Your task to perform on an android device: Do I have any events this weekend? Image 0: 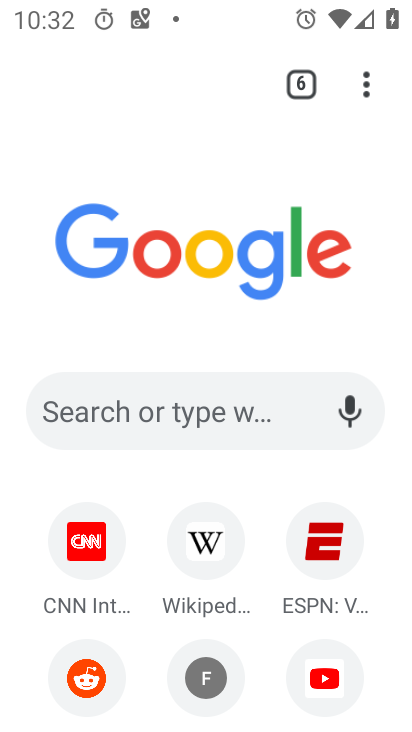
Step 0: press home button
Your task to perform on an android device: Do I have any events this weekend? Image 1: 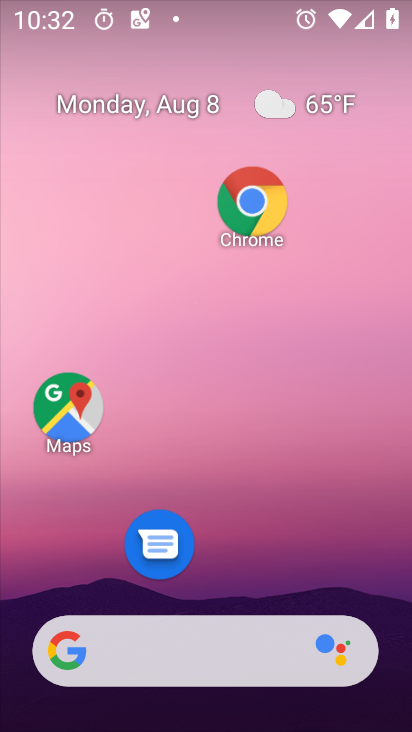
Step 1: drag from (204, 585) to (192, 50)
Your task to perform on an android device: Do I have any events this weekend? Image 2: 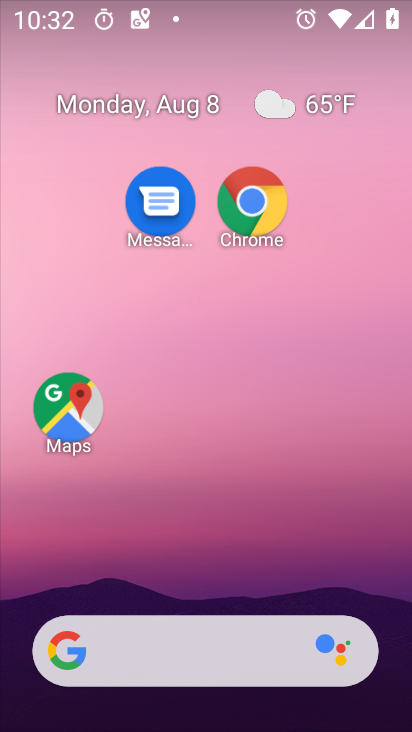
Step 2: drag from (260, 592) to (295, 10)
Your task to perform on an android device: Do I have any events this weekend? Image 3: 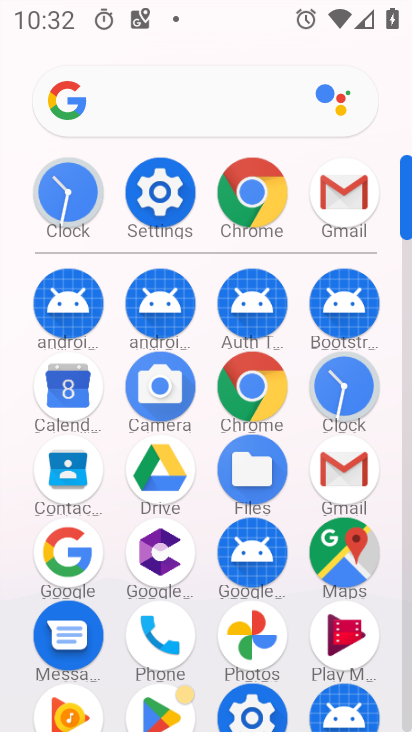
Step 3: click (67, 383)
Your task to perform on an android device: Do I have any events this weekend? Image 4: 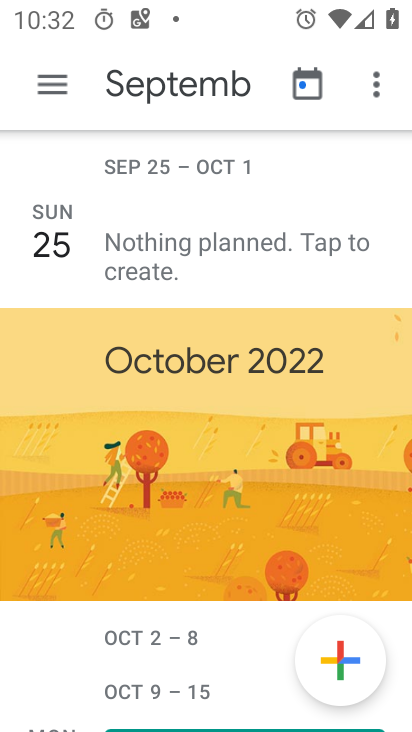
Step 4: click (58, 87)
Your task to perform on an android device: Do I have any events this weekend? Image 5: 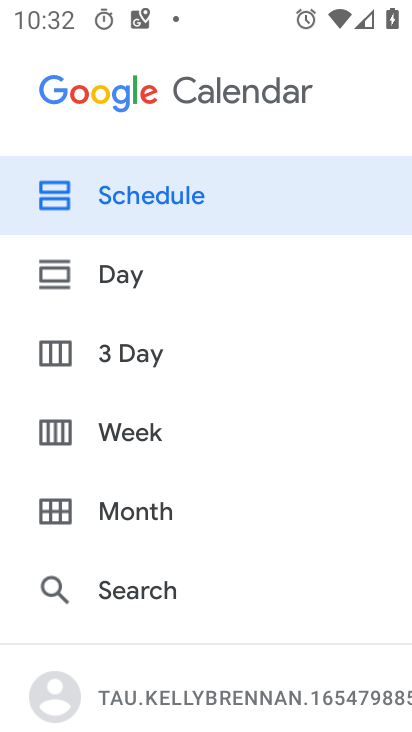
Step 5: click (86, 426)
Your task to perform on an android device: Do I have any events this weekend? Image 6: 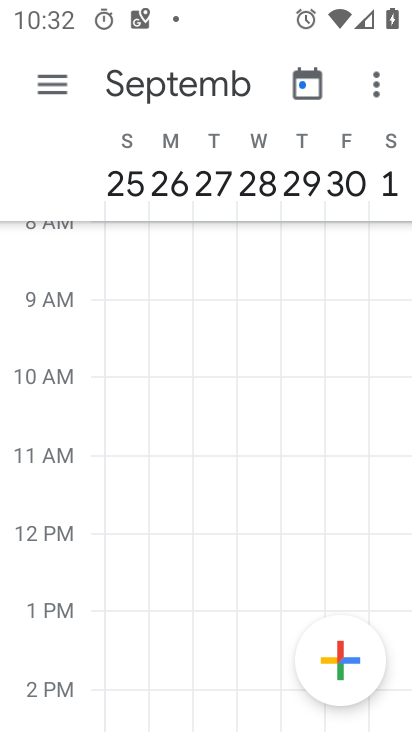
Step 6: click (43, 74)
Your task to perform on an android device: Do I have any events this weekend? Image 7: 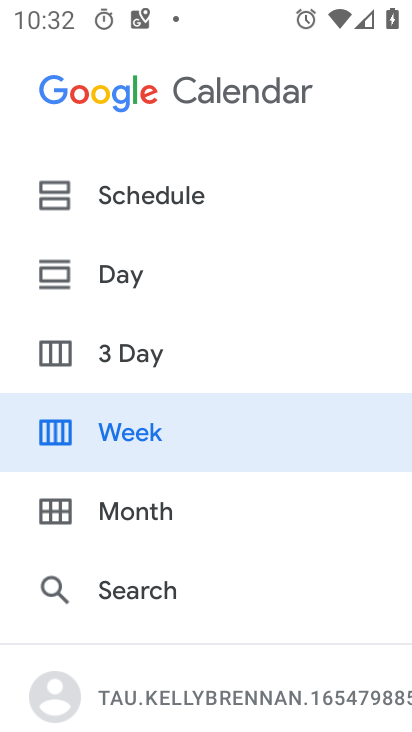
Step 7: drag from (118, 599) to (119, 89)
Your task to perform on an android device: Do I have any events this weekend? Image 8: 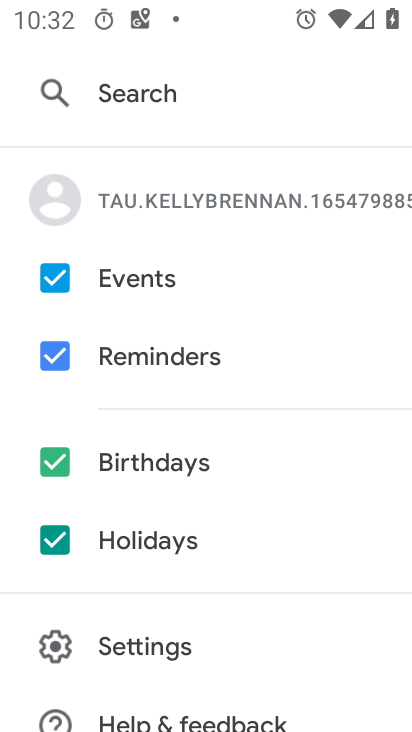
Step 8: click (61, 541)
Your task to perform on an android device: Do I have any events this weekend? Image 9: 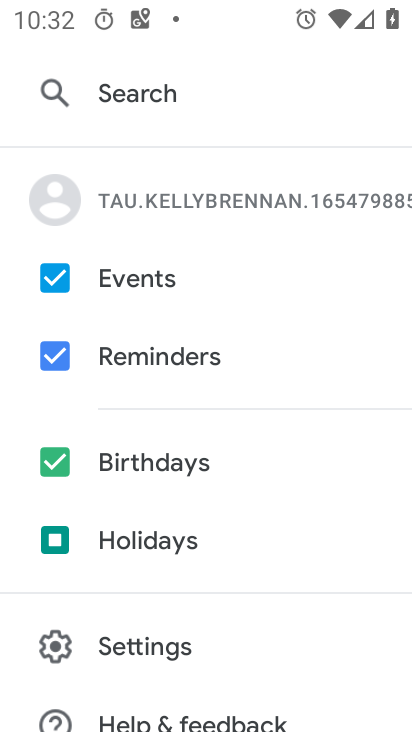
Step 9: click (60, 464)
Your task to perform on an android device: Do I have any events this weekend? Image 10: 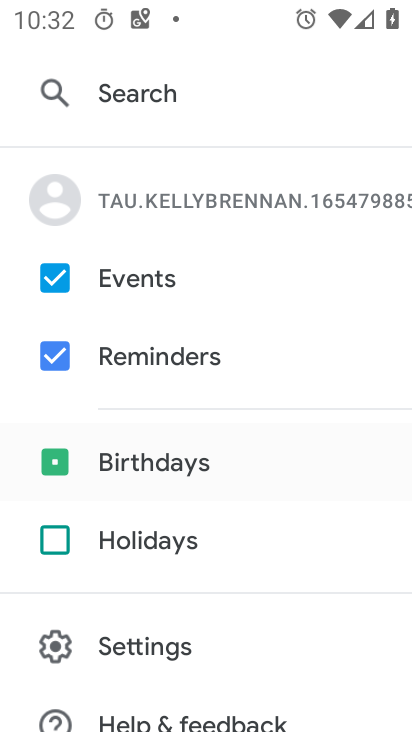
Step 10: click (54, 348)
Your task to perform on an android device: Do I have any events this weekend? Image 11: 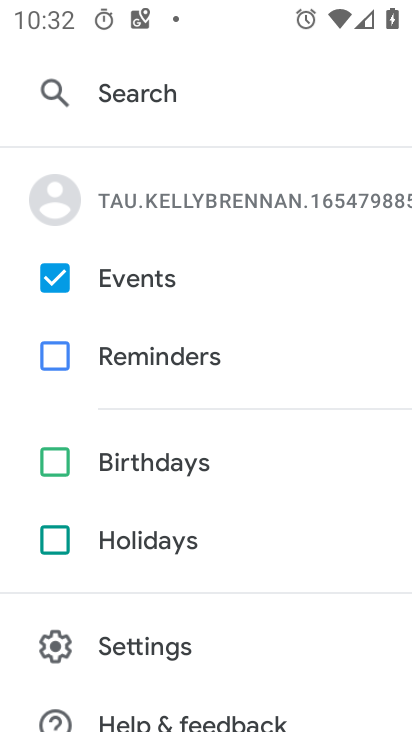
Step 11: drag from (162, 159) to (153, 721)
Your task to perform on an android device: Do I have any events this weekend? Image 12: 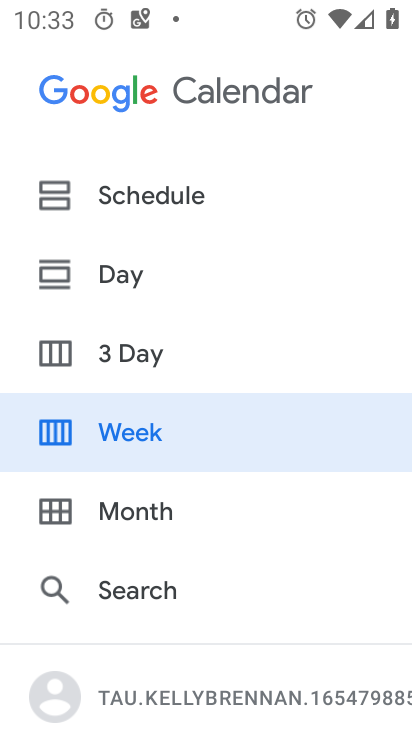
Step 12: click (102, 199)
Your task to perform on an android device: Do I have any events this weekend? Image 13: 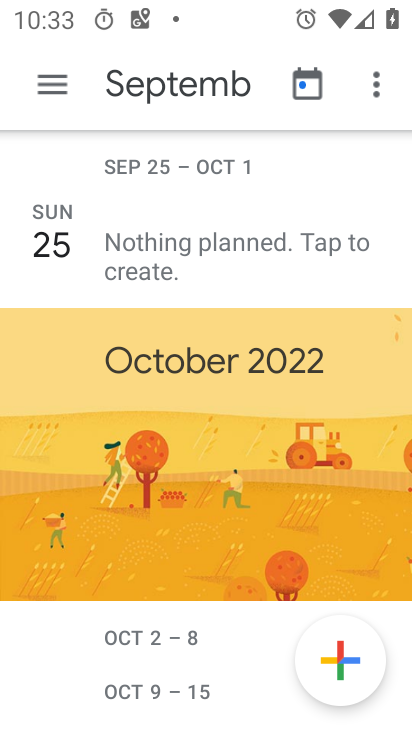
Step 13: task complete